Your task to perform on an android device: Open Chrome and go to settings Image 0: 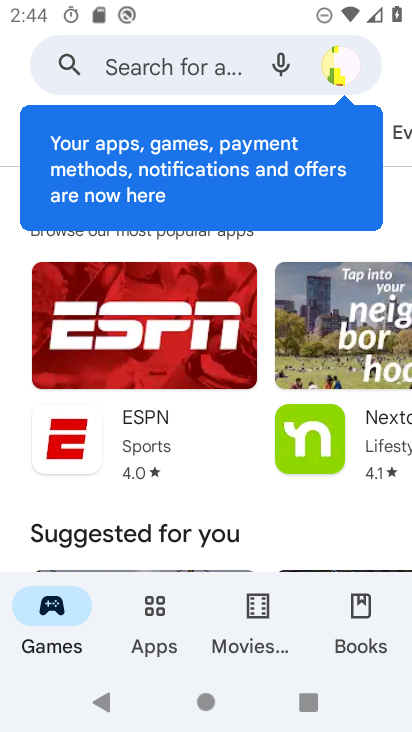
Step 0: press home button
Your task to perform on an android device: Open Chrome and go to settings Image 1: 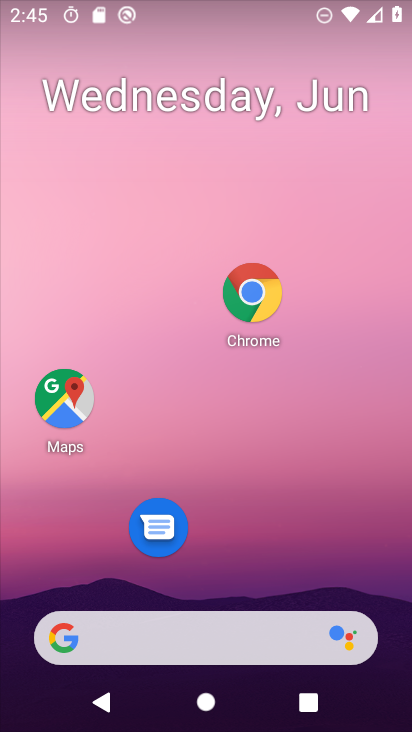
Step 1: drag from (269, 563) to (275, 245)
Your task to perform on an android device: Open Chrome and go to settings Image 2: 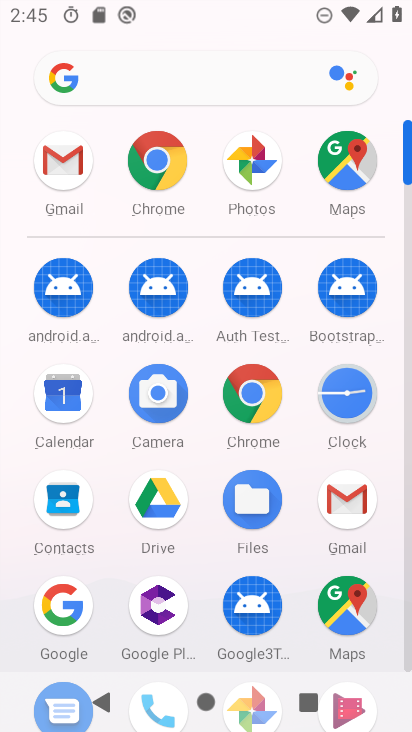
Step 2: click (167, 184)
Your task to perform on an android device: Open Chrome and go to settings Image 3: 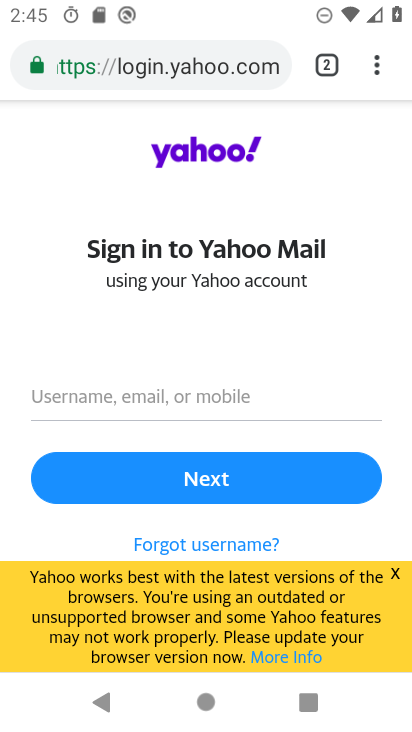
Step 3: click (376, 80)
Your task to perform on an android device: Open Chrome and go to settings Image 4: 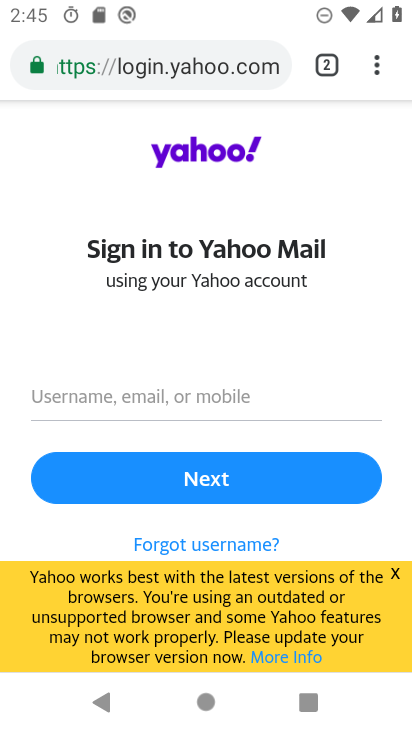
Step 4: click (378, 72)
Your task to perform on an android device: Open Chrome and go to settings Image 5: 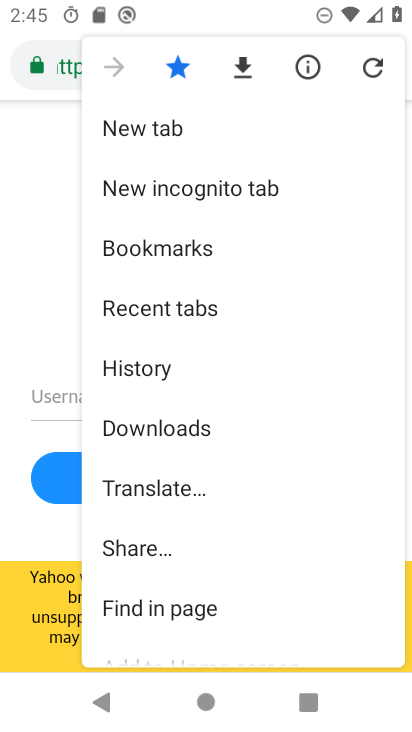
Step 5: drag from (219, 437) to (258, 142)
Your task to perform on an android device: Open Chrome and go to settings Image 6: 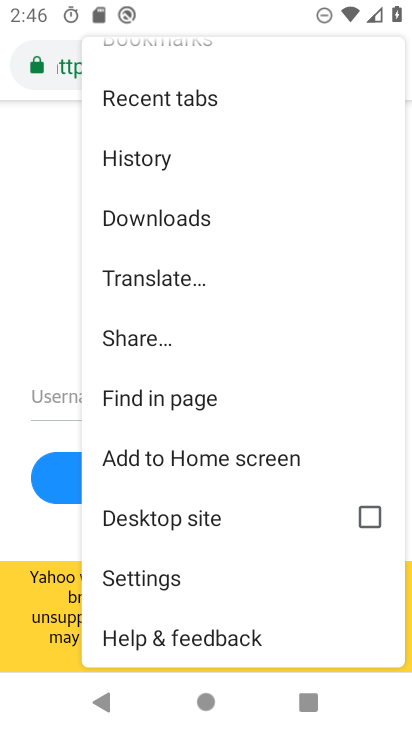
Step 6: click (173, 578)
Your task to perform on an android device: Open Chrome and go to settings Image 7: 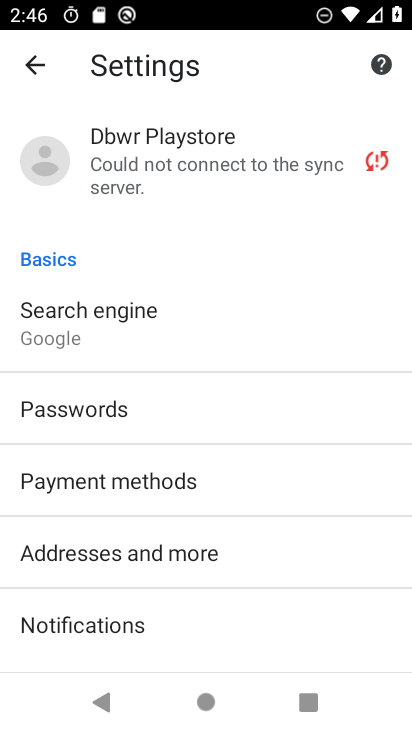
Step 7: task complete